Your task to perform on an android device: Toggle the flashlight Image 0: 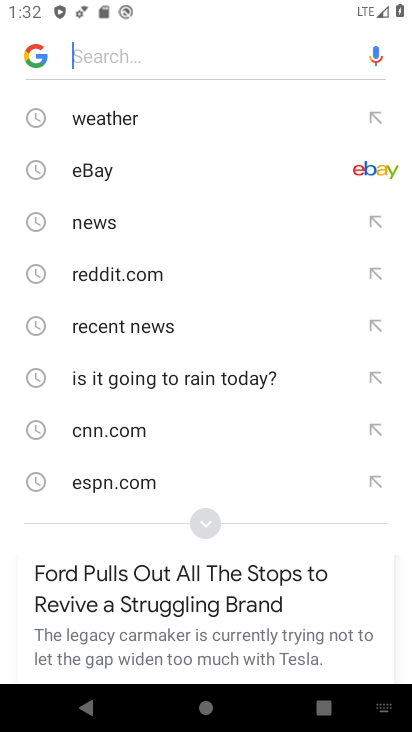
Step 0: press home button
Your task to perform on an android device: Toggle the flashlight Image 1: 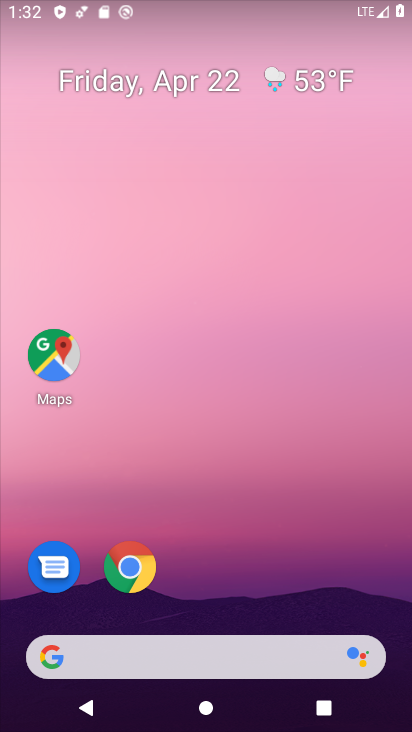
Step 1: drag from (211, 19) to (209, 564)
Your task to perform on an android device: Toggle the flashlight Image 2: 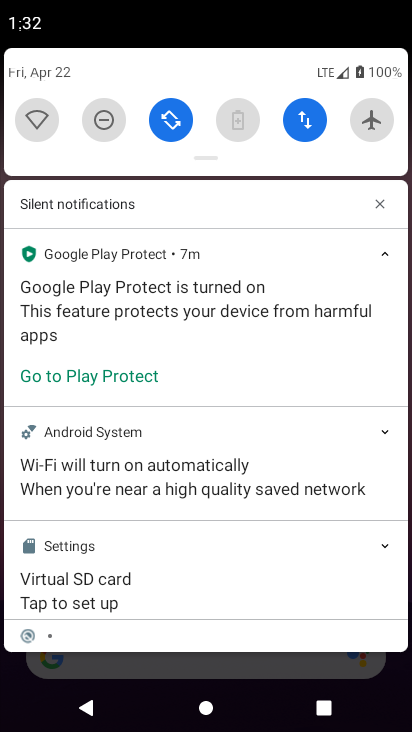
Step 2: drag from (200, 160) to (196, 412)
Your task to perform on an android device: Toggle the flashlight Image 3: 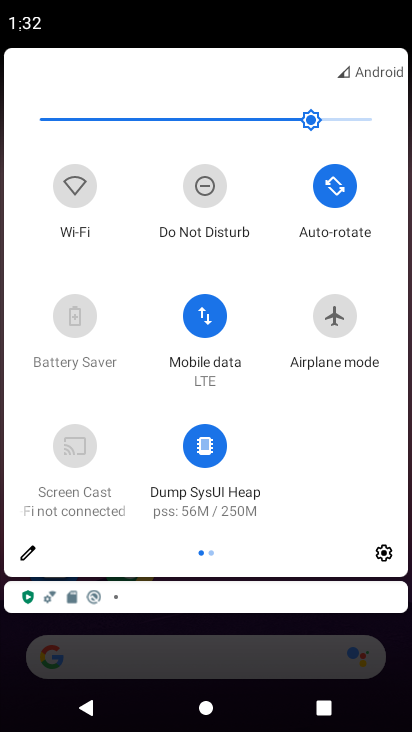
Step 3: click (20, 552)
Your task to perform on an android device: Toggle the flashlight Image 4: 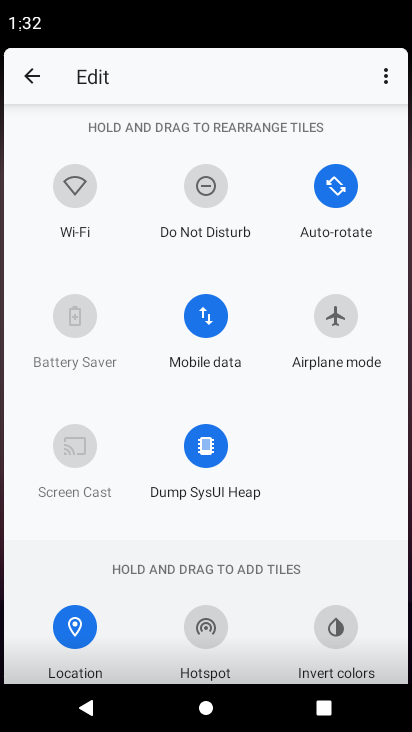
Step 4: task complete